Your task to perform on an android device: Open calendar and show me the third week of next month Image 0: 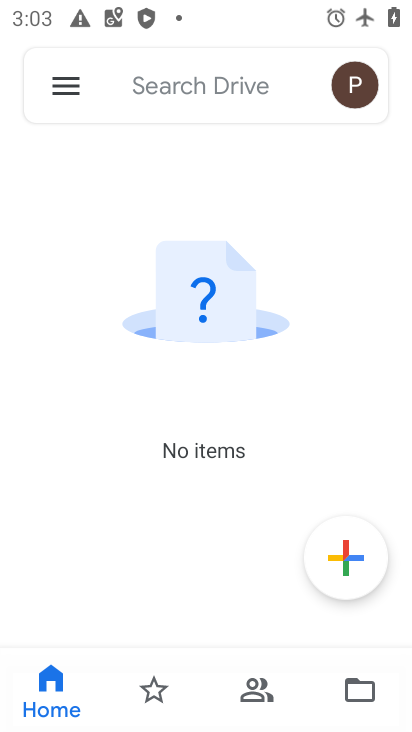
Step 0: press home button
Your task to perform on an android device: Open calendar and show me the third week of next month Image 1: 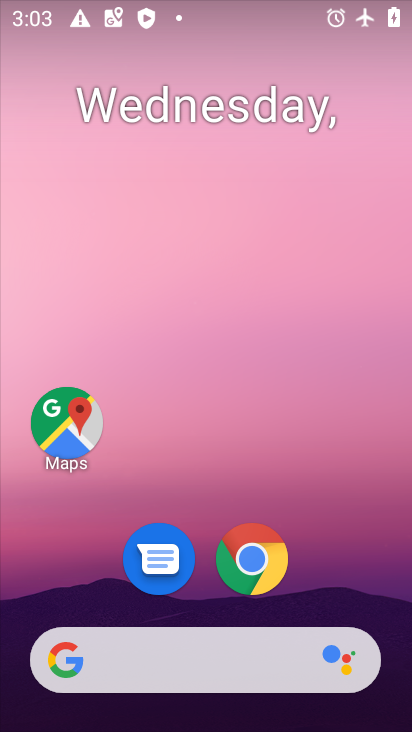
Step 1: drag from (206, 601) to (207, 112)
Your task to perform on an android device: Open calendar and show me the third week of next month Image 2: 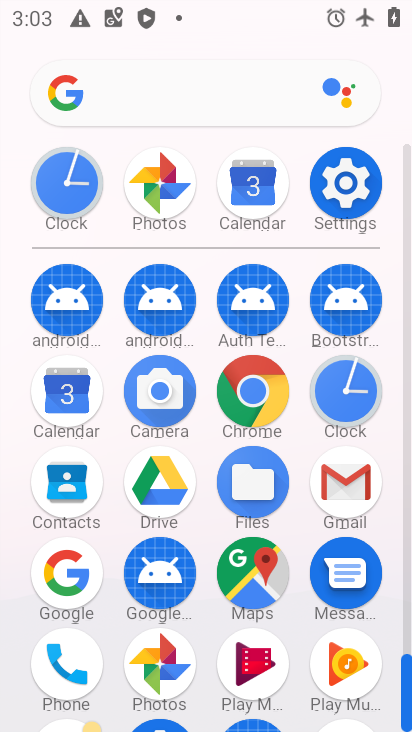
Step 2: click (52, 398)
Your task to perform on an android device: Open calendar and show me the third week of next month Image 3: 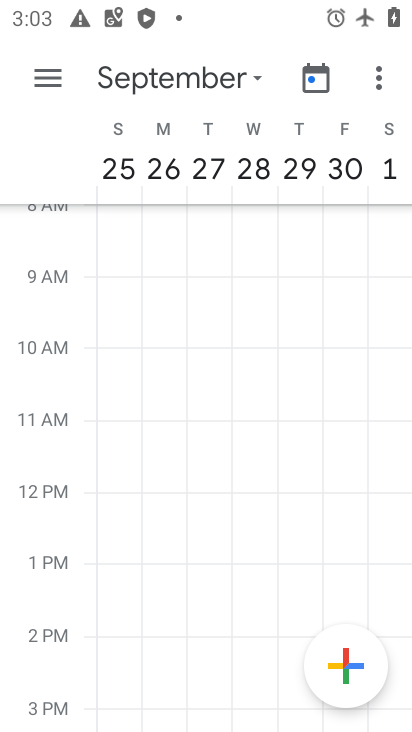
Step 3: task complete